Your task to perform on an android device: Show me the alarms in the clock app Image 0: 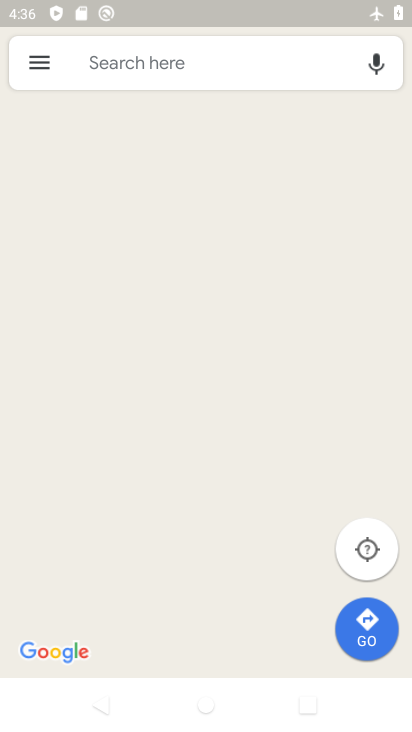
Step 0: press home button
Your task to perform on an android device: Show me the alarms in the clock app Image 1: 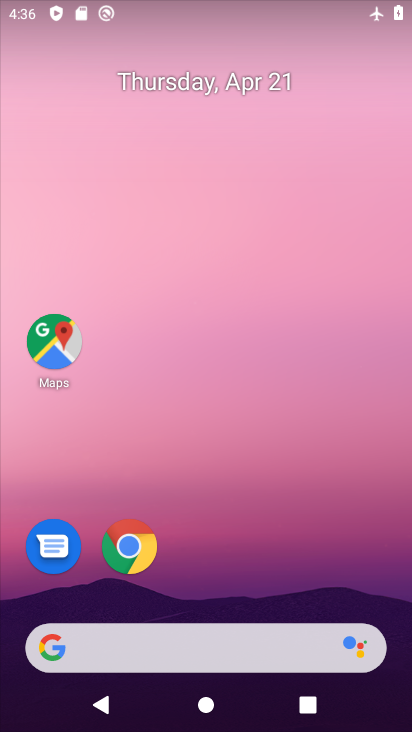
Step 1: drag from (270, 605) to (248, 57)
Your task to perform on an android device: Show me the alarms in the clock app Image 2: 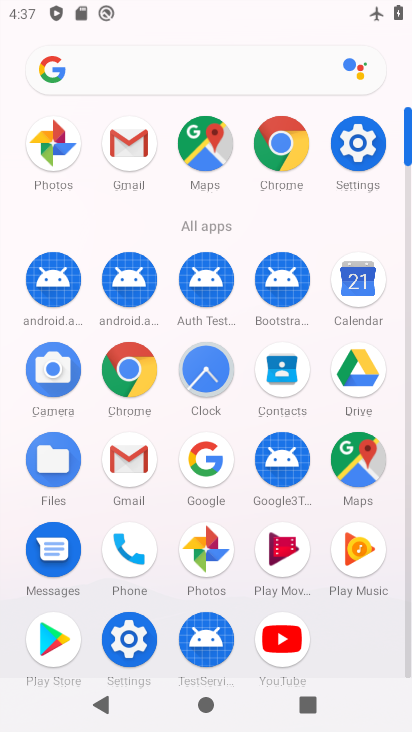
Step 2: click (204, 367)
Your task to perform on an android device: Show me the alarms in the clock app Image 3: 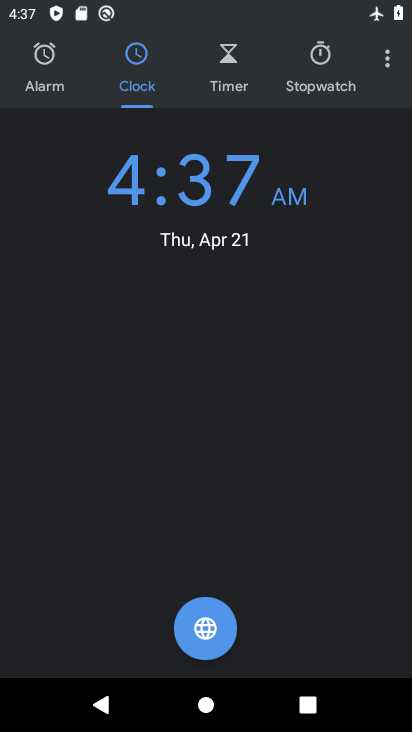
Step 3: click (57, 71)
Your task to perform on an android device: Show me the alarms in the clock app Image 4: 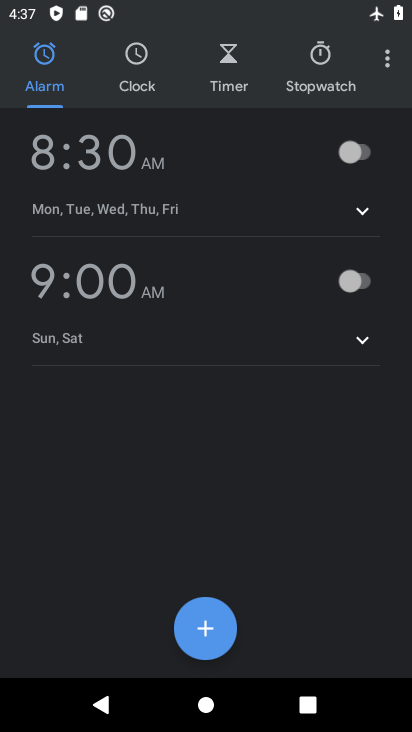
Step 4: task complete